Your task to perform on an android device: turn off notifications settings in the gmail app Image 0: 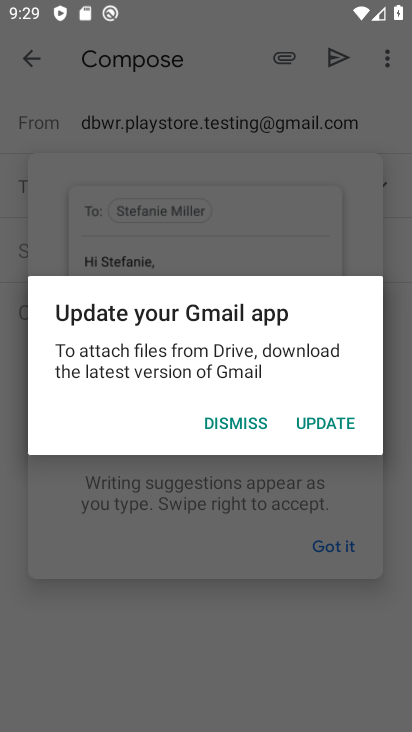
Step 0: press home button
Your task to perform on an android device: turn off notifications settings in the gmail app Image 1: 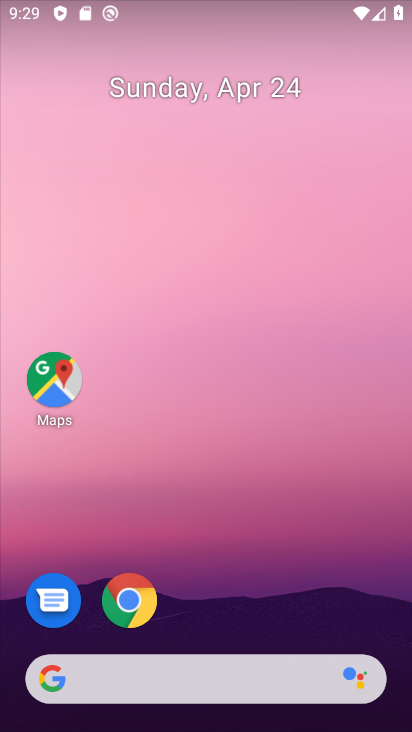
Step 1: drag from (212, 427) to (238, 5)
Your task to perform on an android device: turn off notifications settings in the gmail app Image 2: 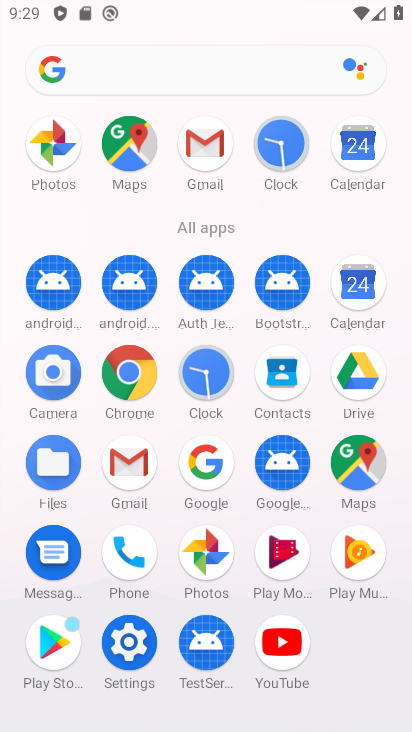
Step 2: click (127, 472)
Your task to perform on an android device: turn off notifications settings in the gmail app Image 3: 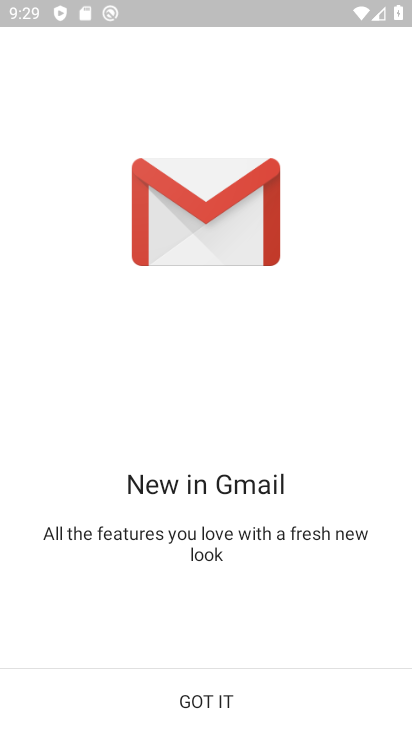
Step 3: click (226, 701)
Your task to perform on an android device: turn off notifications settings in the gmail app Image 4: 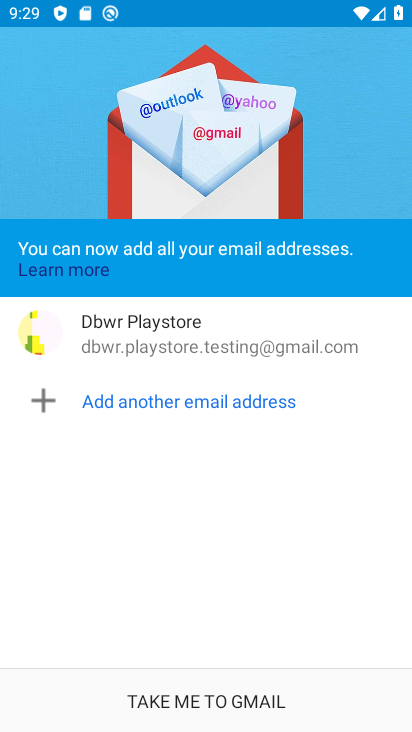
Step 4: click (228, 697)
Your task to perform on an android device: turn off notifications settings in the gmail app Image 5: 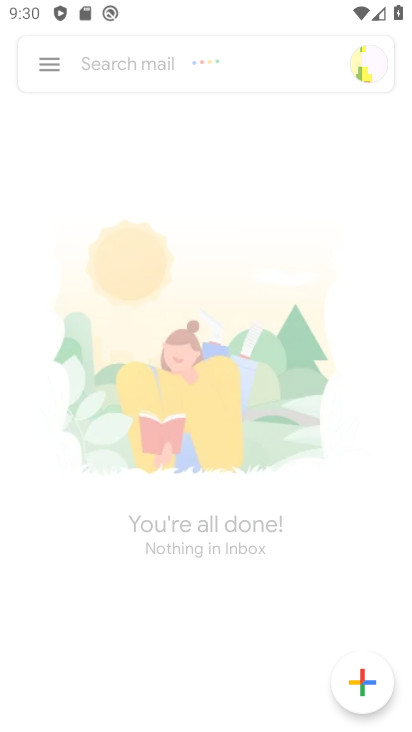
Step 5: click (68, 47)
Your task to perform on an android device: turn off notifications settings in the gmail app Image 6: 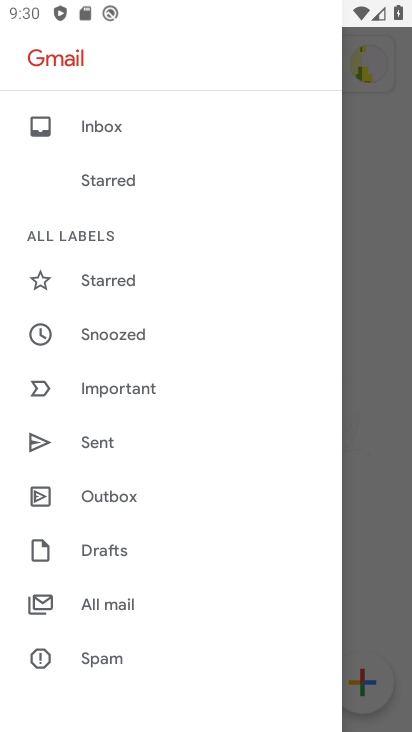
Step 6: drag from (122, 561) to (220, 0)
Your task to perform on an android device: turn off notifications settings in the gmail app Image 7: 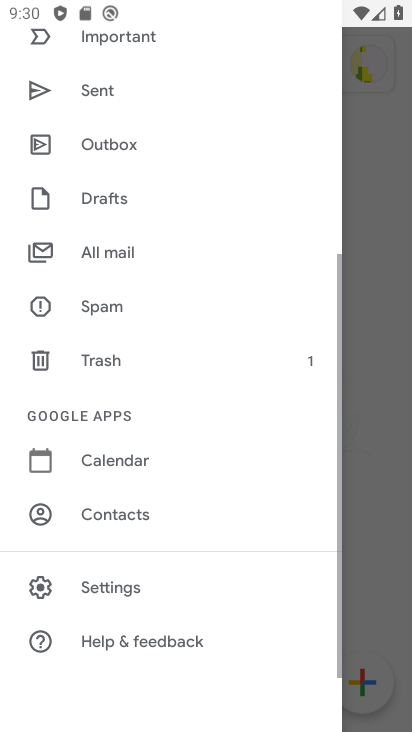
Step 7: click (132, 600)
Your task to perform on an android device: turn off notifications settings in the gmail app Image 8: 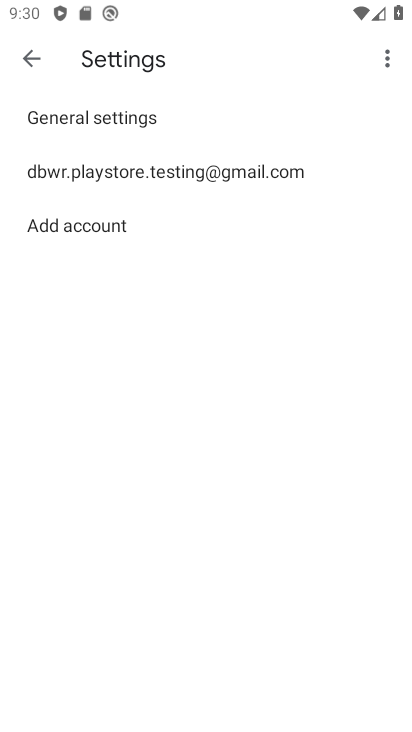
Step 8: click (101, 123)
Your task to perform on an android device: turn off notifications settings in the gmail app Image 9: 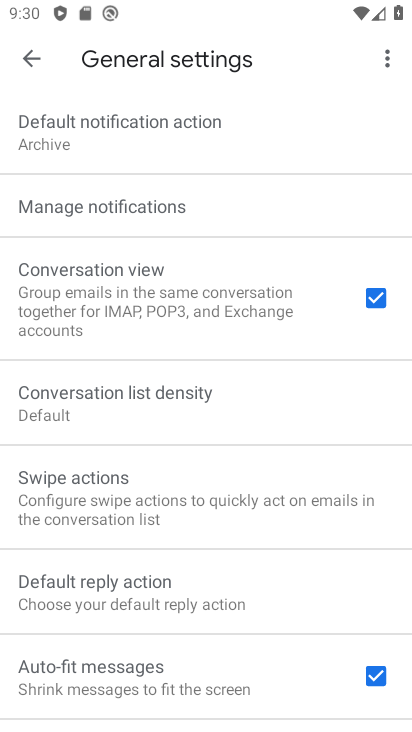
Step 9: click (128, 213)
Your task to perform on an android device: turn off notifications settings in the gmail app Image 10: 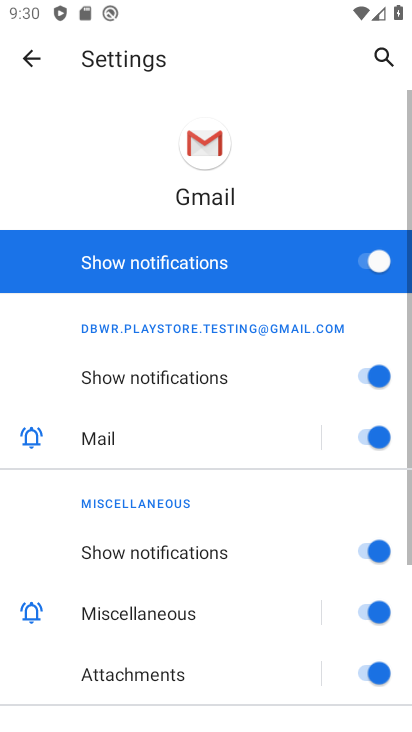
Step 10: click (354, 257)
Your task to perform on an android device: turn off notifications settings in the gmail app Image 11: 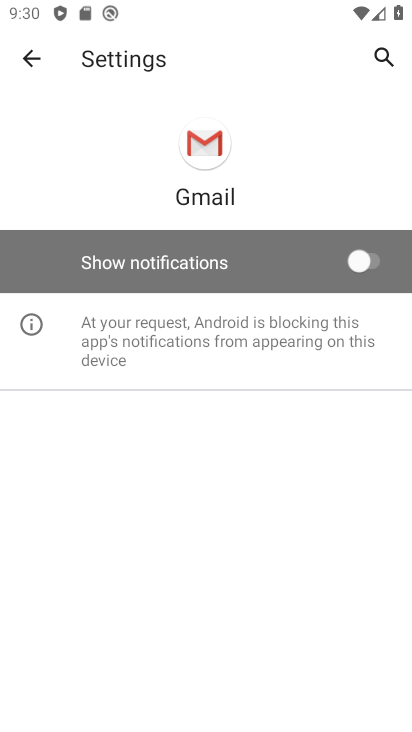
Step 11: task complete